Your task to perform on an android device: Do I have any events this weekend? Image 0: 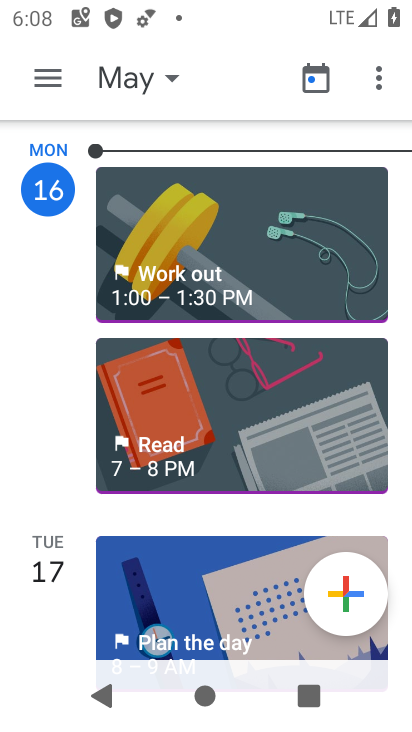
Step 0: press home button
Your task to perform on an android device: Do I have any events this weekend? Image 1: 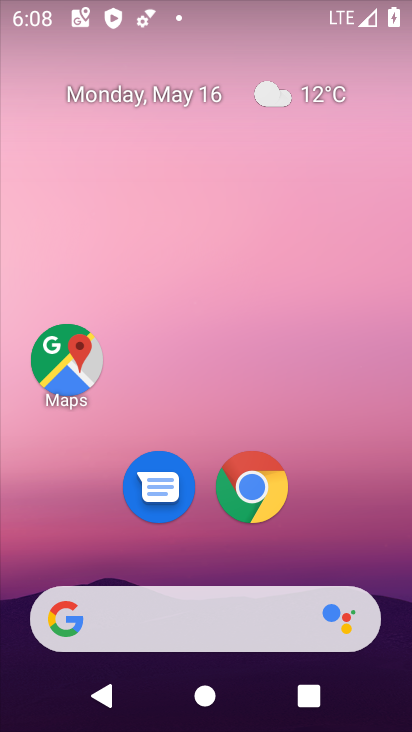
Step 1: drag from (326, 452) to (298, 99)
Your task to perform on an android device: Do I have any events this weekend? Image 2: 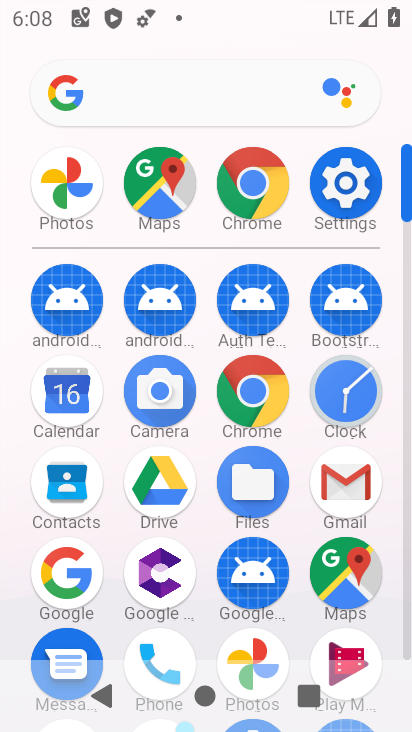
Step 2: click (74, 394)
Your task to perform on an android device: Do I have any events this weekend? Image 3: 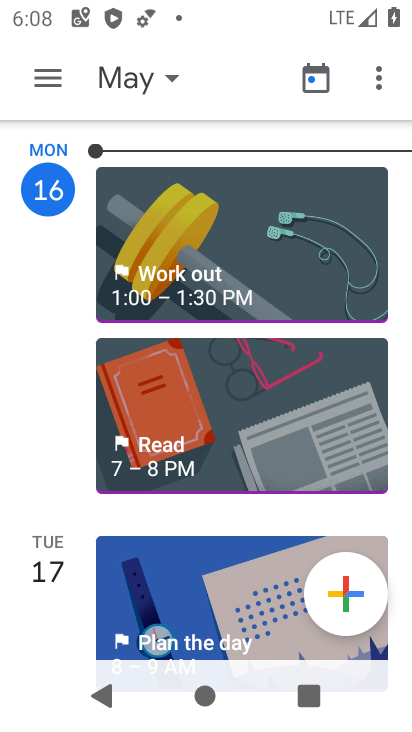
Step 3: click (142, 78)
Your task to perform on an android device: Do I have any events this weekend? Image 4: 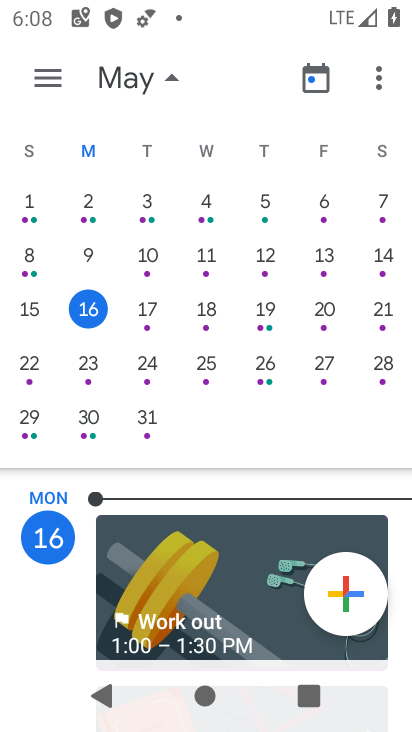
Step 4: click (54, 77)
Your task to perform on an android device: Do I have any events this weekend? Image 5: 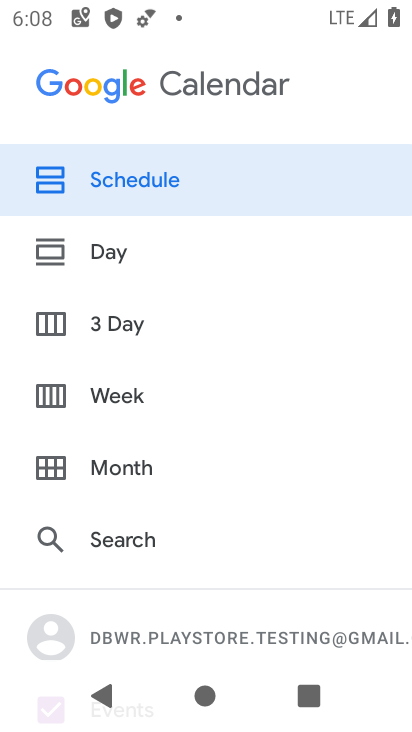
Step 5: click (95, 317)
Your task to perform on an android device: Do I have any events this weekend? Image 6: 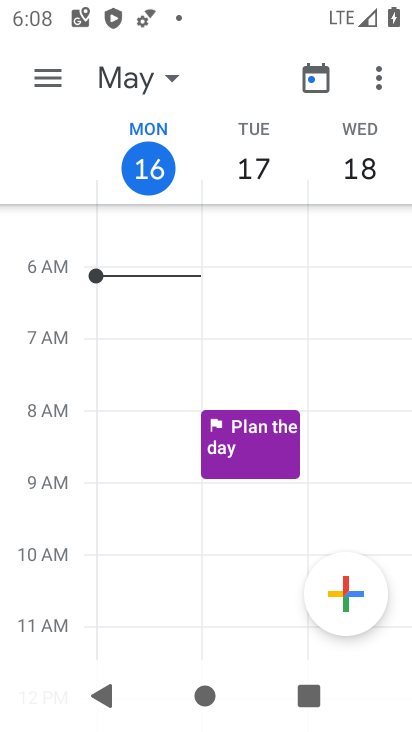
Step 6: task complete